Your task to perform on an android device: What's the weather going to be this weekend? Image 0: 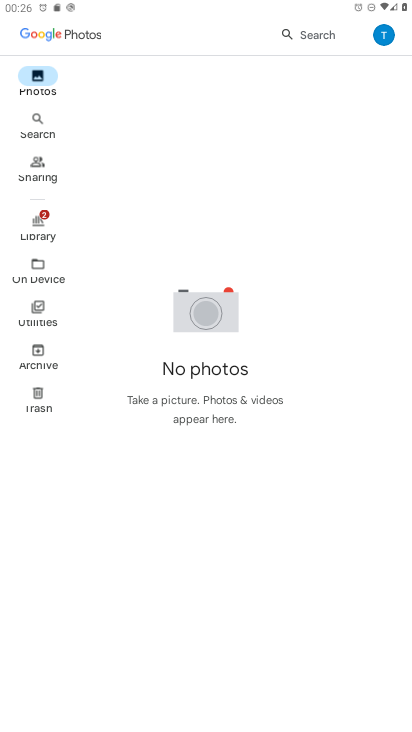
Step 0: press home button
Your task to perform on an android device: What's the weather going to be this weekend? Image 1: 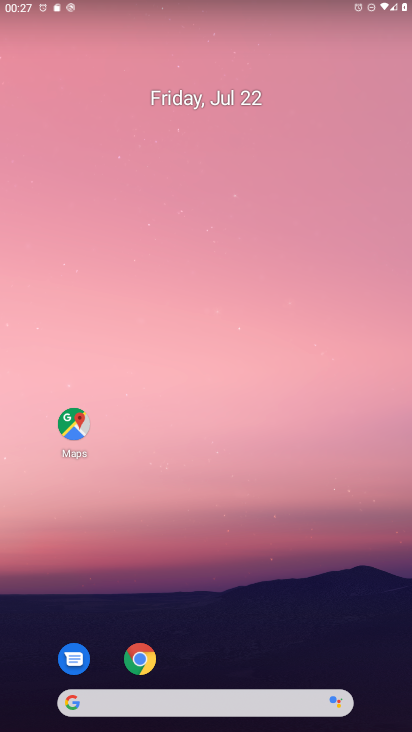
Step 1: drag from (204, 708) to (314, 66)
Your task to perform on an android device: What's the weather going to be this weekend? Image 2: 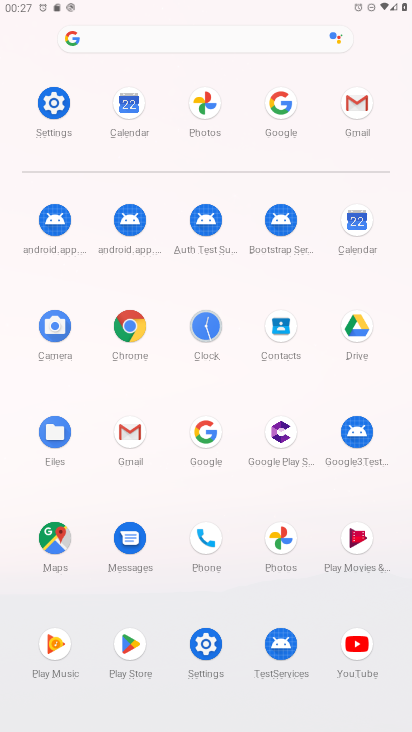
Step 2: click (280, 101)
Your task to perform on an android device: What's the weather going to be this weekend? Image 3: 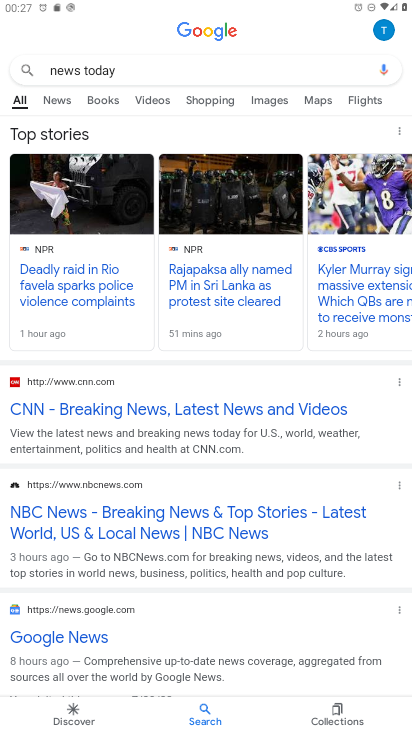
Step 3: click (231, 71)
Your task to perform on an android device: What's the weather going to be this weekend? Image 4: 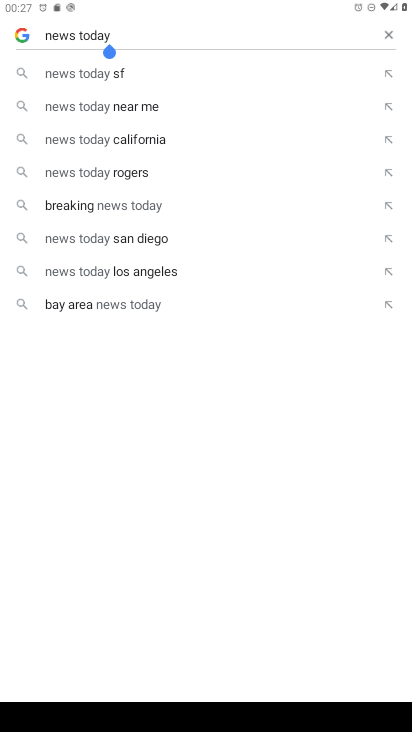
Step 4: click (391, 33)
Your task to perform on an android device: What's the weather going to be this weekend? Image 5: 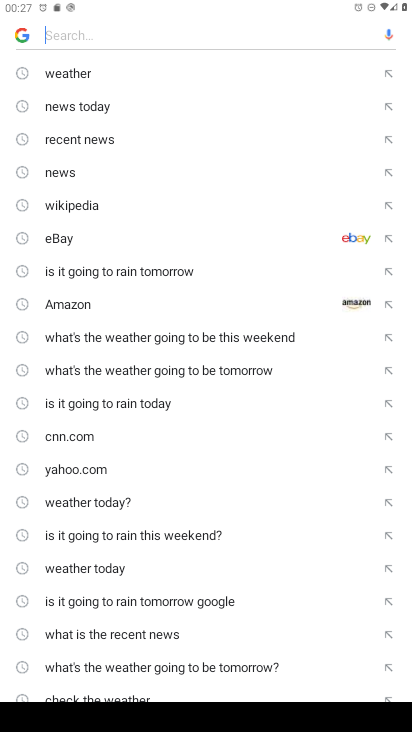
Step 5: click (266, 336)
Your task to perform on an android device: What's the weather going to be this weekend? Image 6: 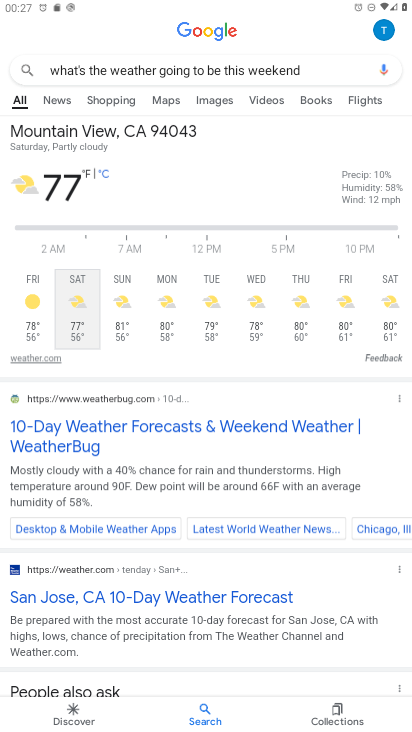
Step 6: task complete